Your task to perform on an android device: Go to calendar. Show me events next week Image 0: 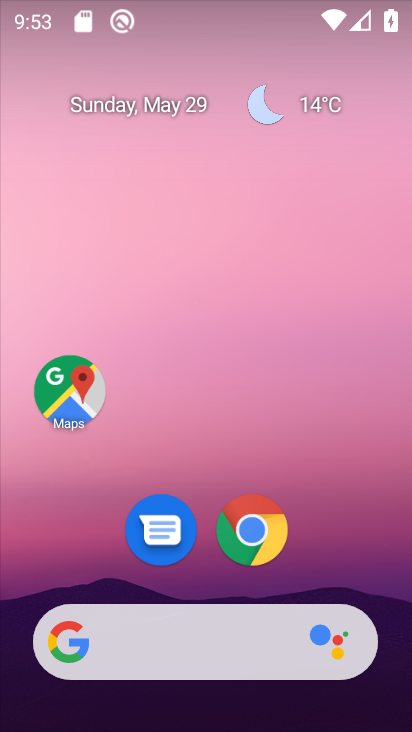
Step 0: drag from (255, 605) to (285, 15)
Your task to perform on an android device: Go to calendar. Show me events next week Image 1: 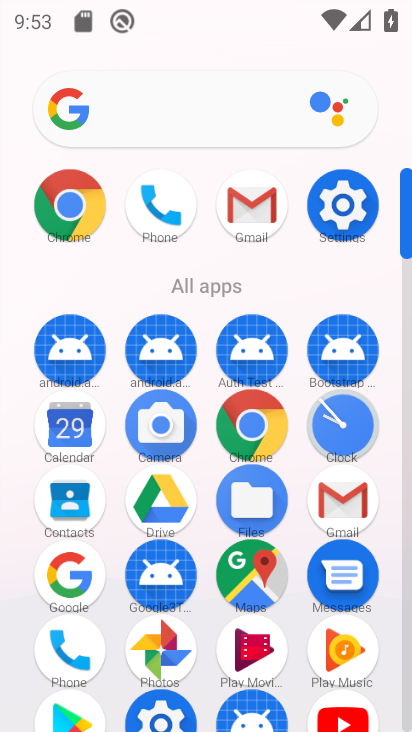
Step 1: click (84, 441)
Your task to perform on an android device: Go to calendar. Show me events next week Image 2: 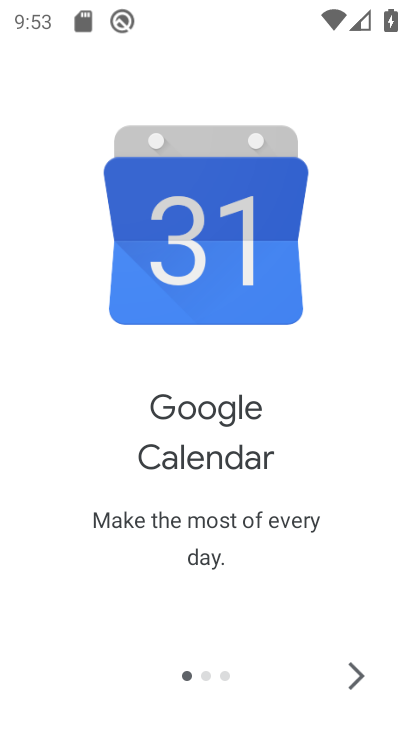
Step 2: click (355, 678)
Your task to perform on an android device: Go to calendar. Show me events next week Image 3: 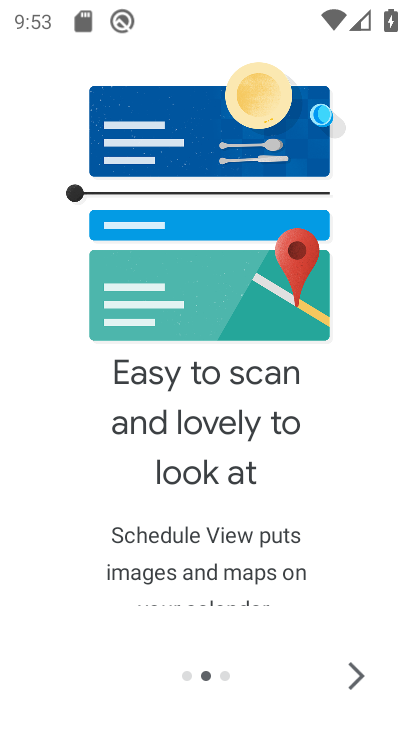
Step 3: click (353, 676)
Your task to perform on an android device: Go to calendar. Show me events next week Image 4: 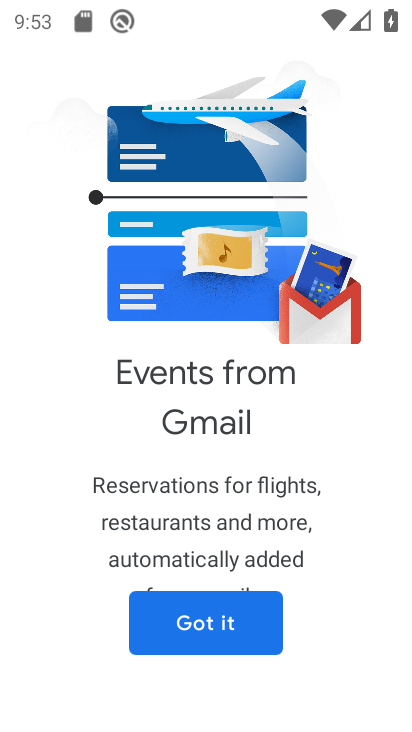
Step 4: click (192, 603)
Your task to perform on an android device: Go to calendar. Show me events next week Image 5: 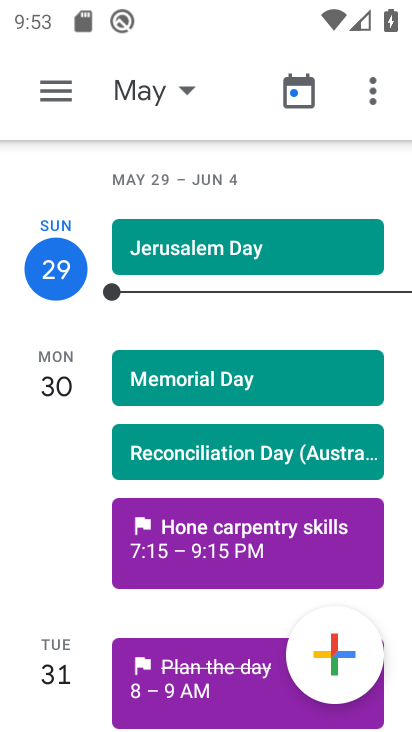
Step 5: click (46, 102)
Your task to perform on an android device: Go to calendar. Show me events next week Image 6: 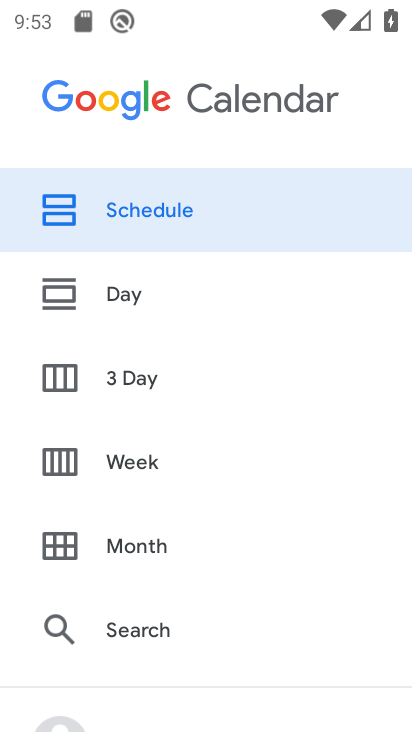
Step 6: click (158, 462)
Your task to perform on an android device: Go to calendar. Show me events next week Image 7: 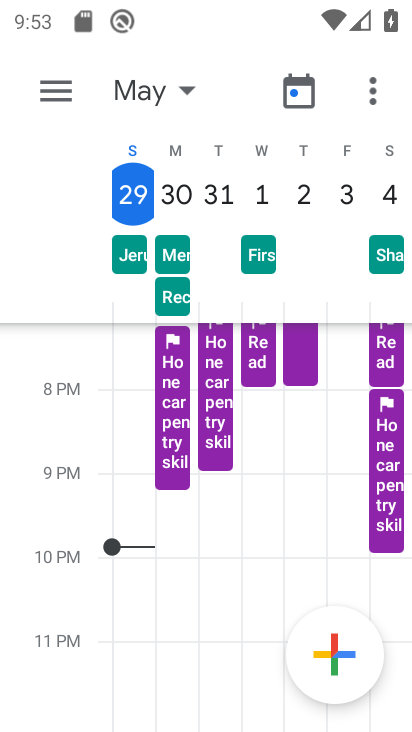
Step 7: task complete